Your task to perform on an android device: Go to calendar. Show me events next week Image 0: 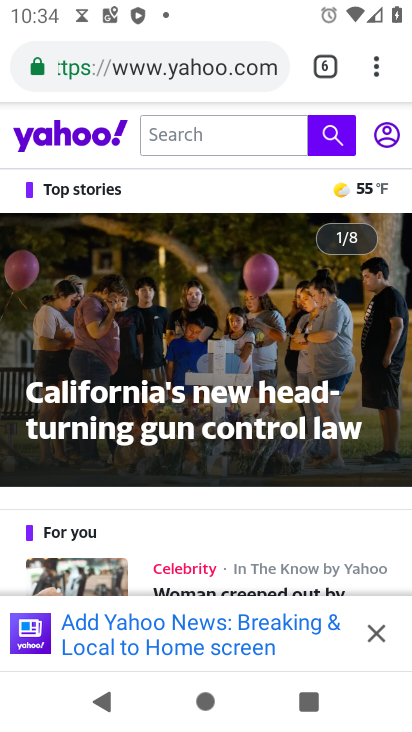
Step 0: press home button
Your task to perform on an android device: Go to calendar. Show me events next week Image 1: 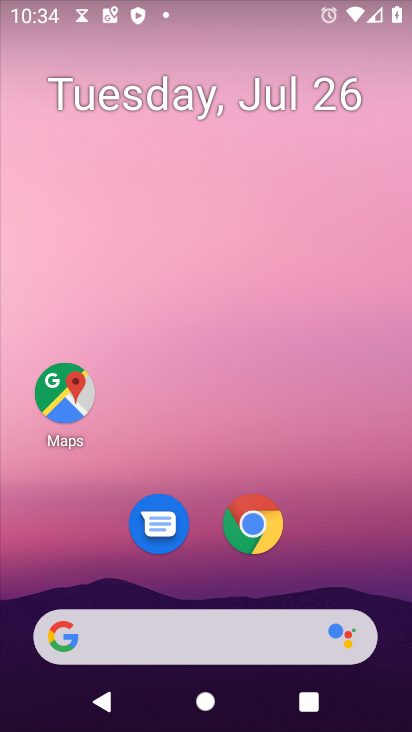
Step 1: drag from (199, 636) to (316, 93)
Your task to perform on an android device: Go to calendar. Show me events next week Image 2: 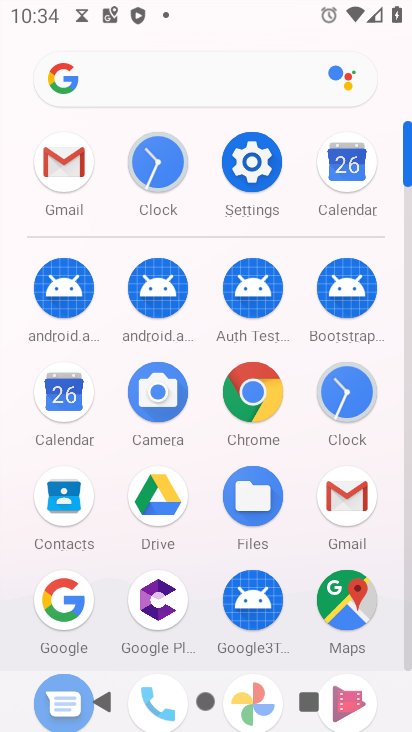
Step 2: click (59, 397)
Your task to perform on an android device: Go to calendar. Show me events next week Image 3: 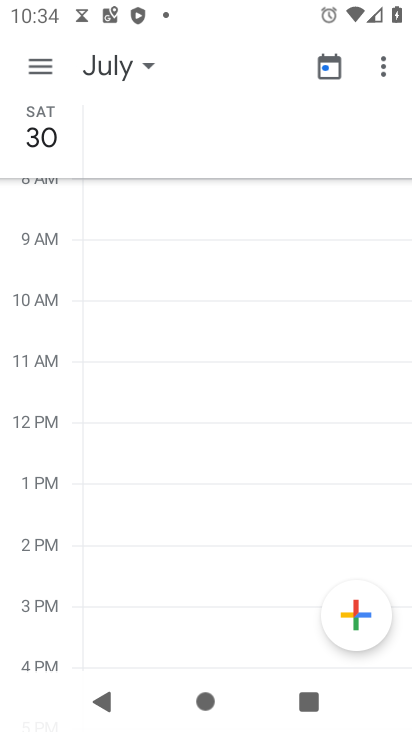
Step 3: click (101, 58)
Your task to perform on an android device: Go to calendar. Show me events next week Image 4: 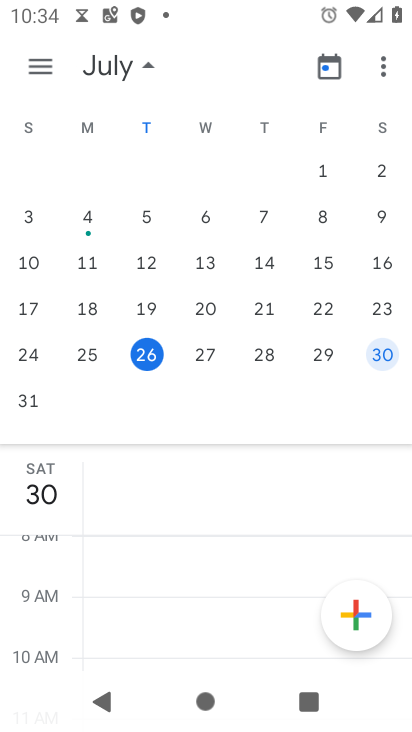
Step 4: click (40, 407)
Your task to perform on an android device: Go to calendar. Show me events next week Image 5: 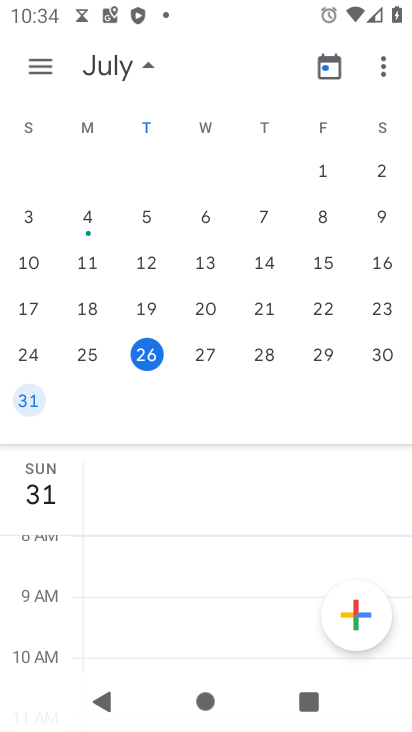
Step 5: click (39, 69)
Your task to perform on an android device: Go to calendar. Show me events next week Image 6: 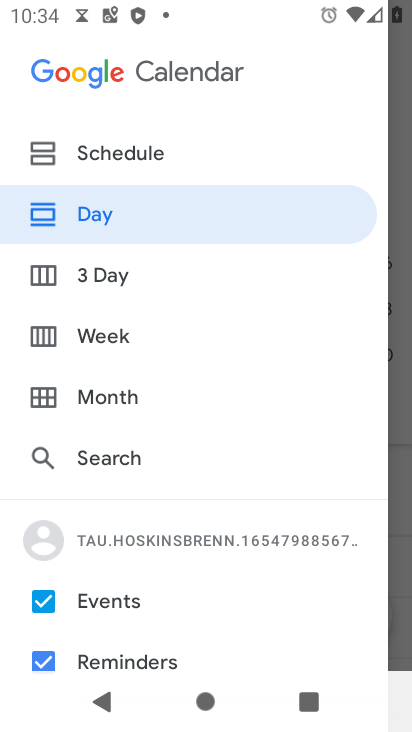
Step 6: click (106, 337)
Your task to perform on an android device: Go to calendar. Show me events next week Image 7: 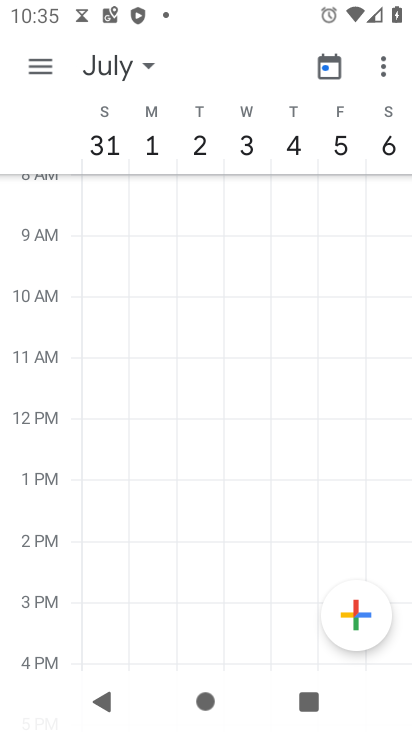
Step 7: click (32, 62)
Your task to perform on an android device: Go to calendar. Show me events next week Image 8: 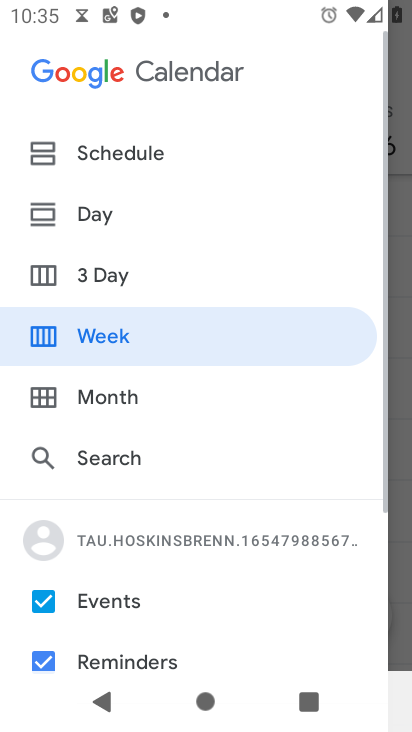
Step 8: click (87, 158)
Your task to perform on an android device: Go to calendar. Show me events next week Image 9: 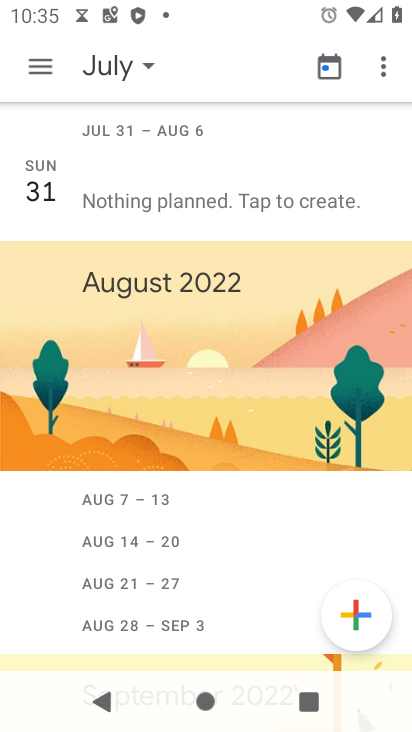
Step 9: task complete